Your task to perform on an android device: Show me popular videos on Youtube Image 0: 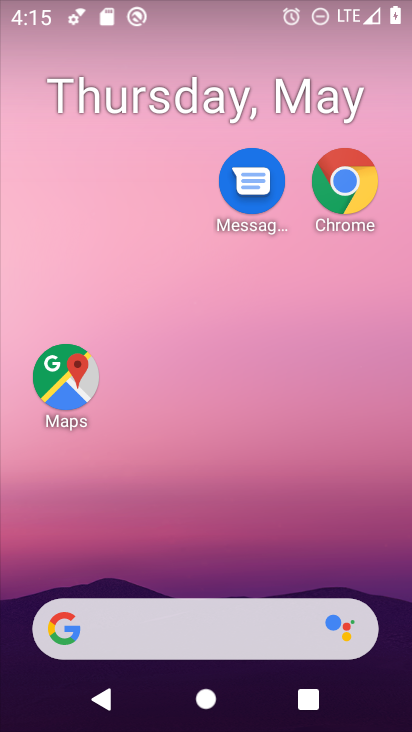
Step 0: drag from (377, 598) to (372, 10)
Your task to perform on an android device: Show me popular videos on Youtube Image 1: 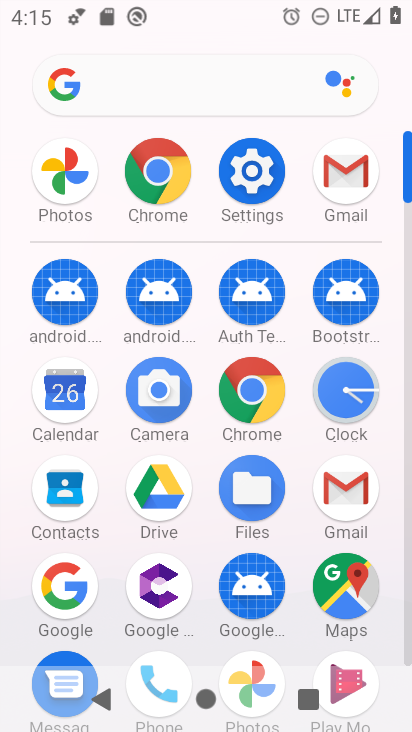
Step 1: drag from (314, 671) to (336, 95)
Your task to perform on an android device: Show me popular videos on Youtube Image 2: 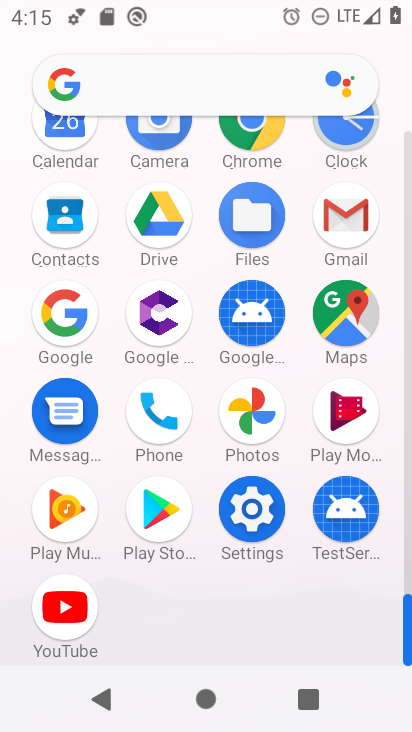
Step 2: click (72, 600)
Your task to perform on an android device: Show me popular videos on Youtube Image 3: 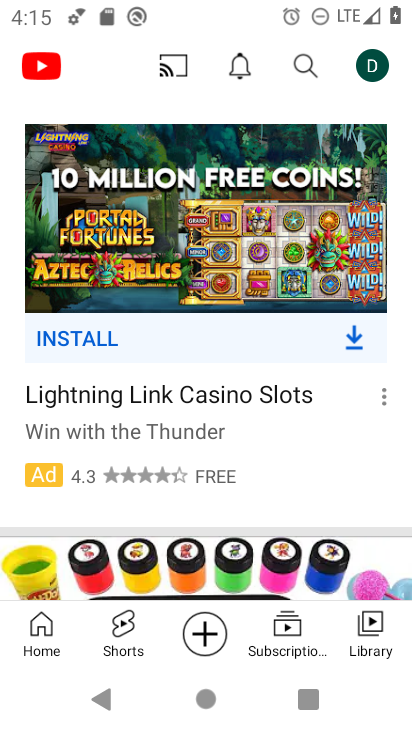
Step 3: task complete